Your task to perform on an android device: uninstall "Reddit" Image 0: 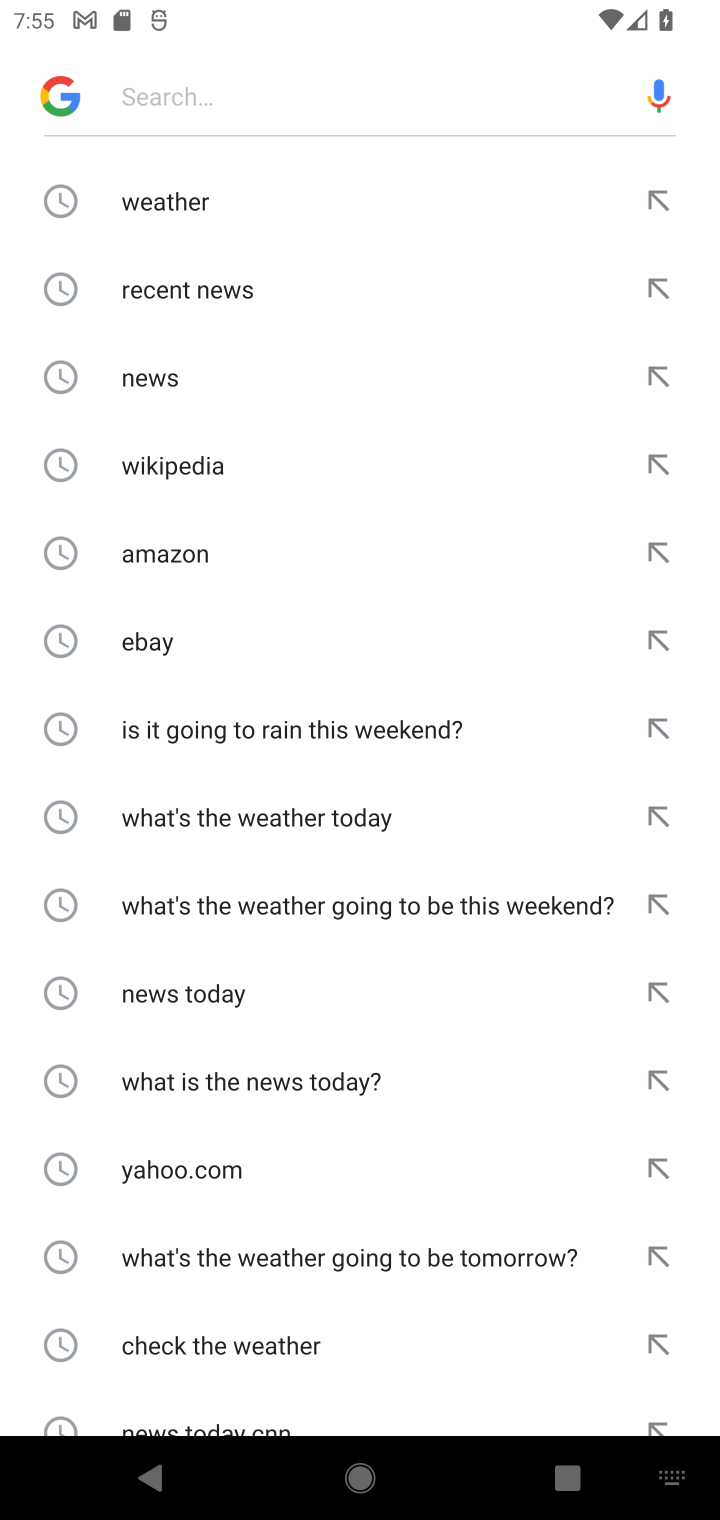
Step 0: press home button
Your task to perform on an android device: uninstall "Reddit" Image 1: 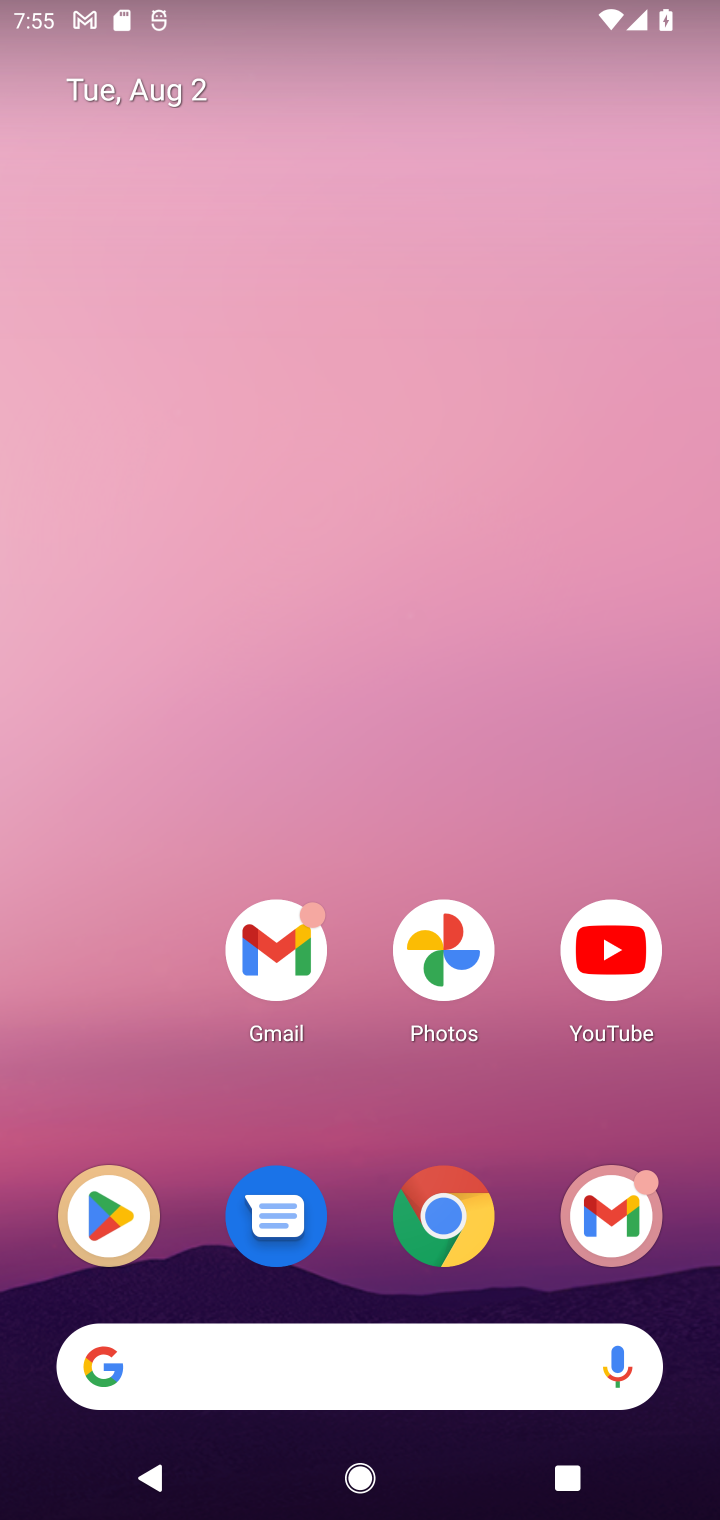
Step 1: click (115, 1208)
Your task to perform on an android device: uninstall "Reddit" Image 2: 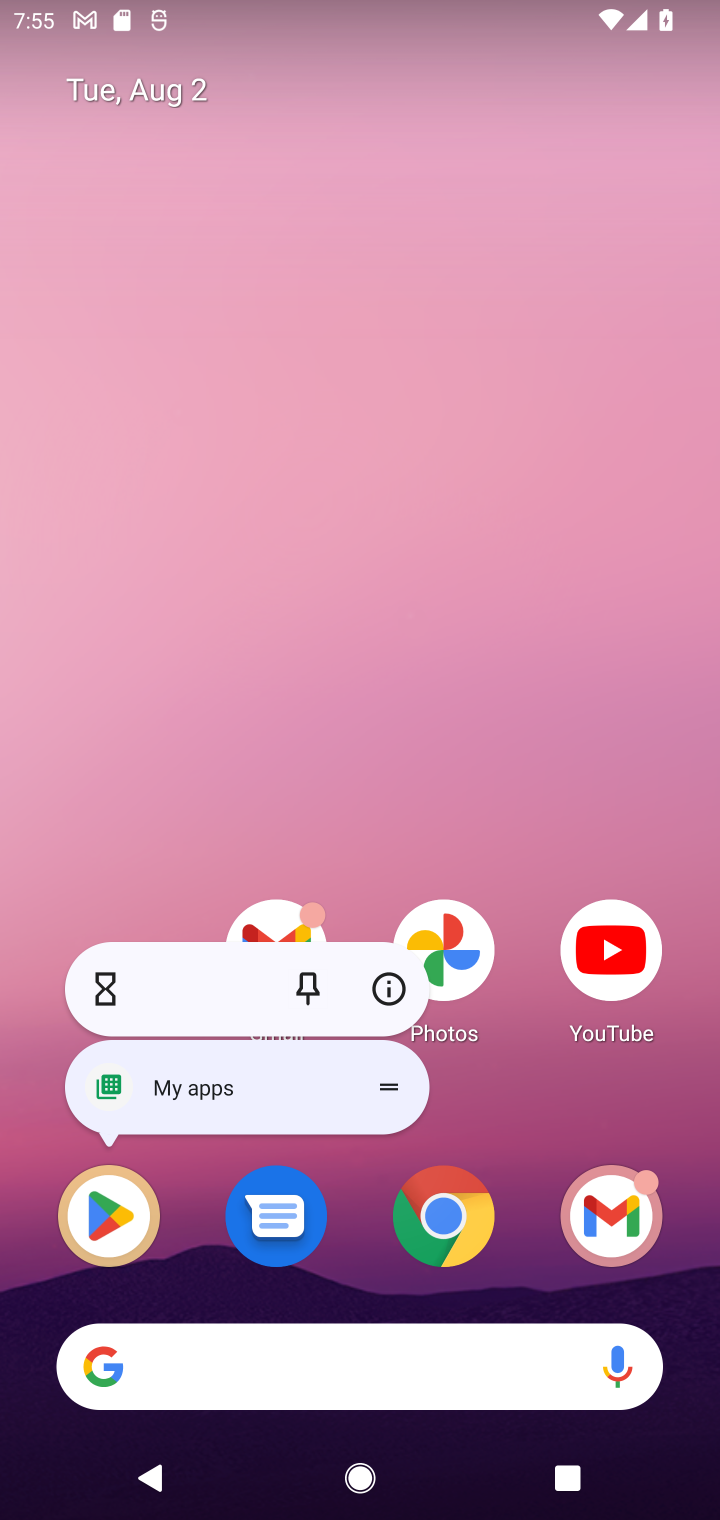
Step 2: click (115, 1208)
Your task to perform on an android device: uninstall "Reddit" Image 3: 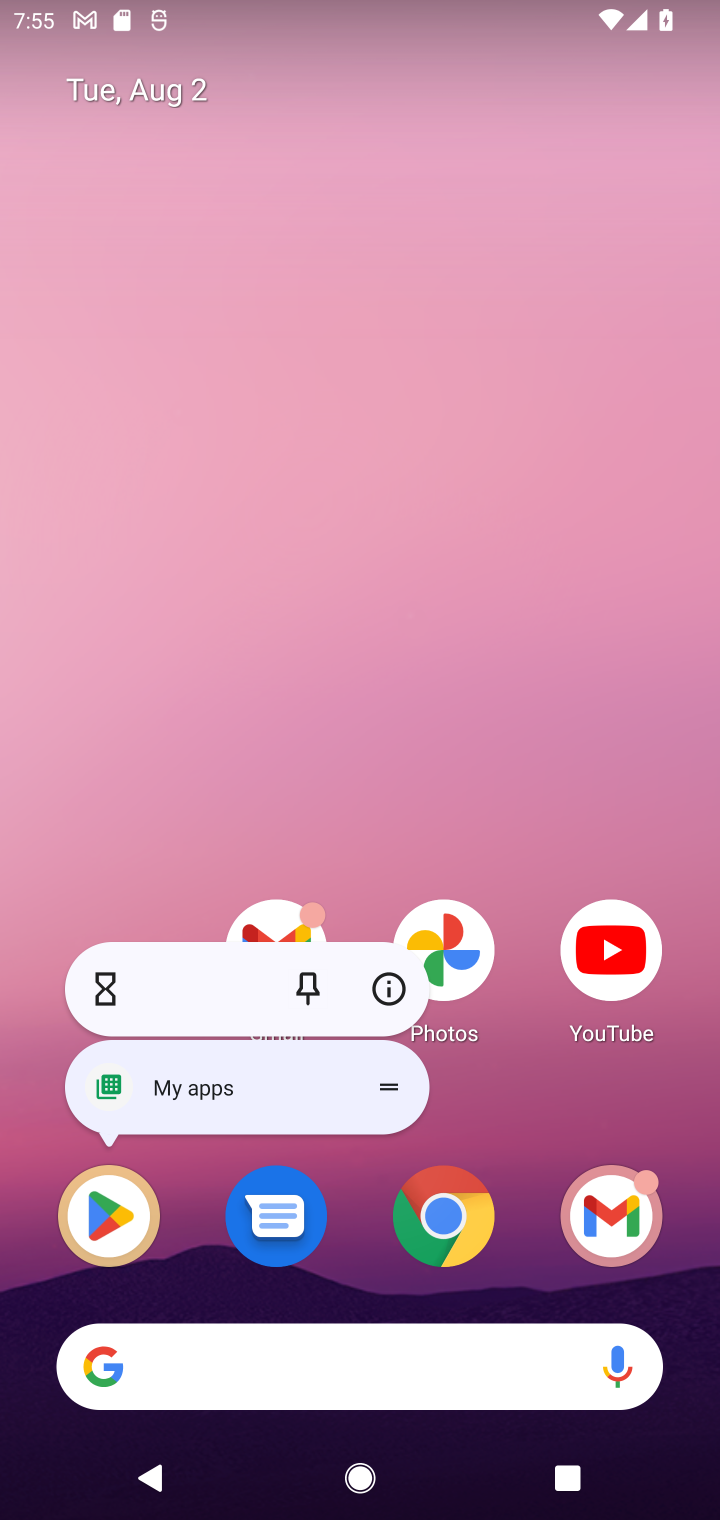
Step 3: click (115, 1210)
Your task to perform on an android device: uninstall "Reddit" Image 4: 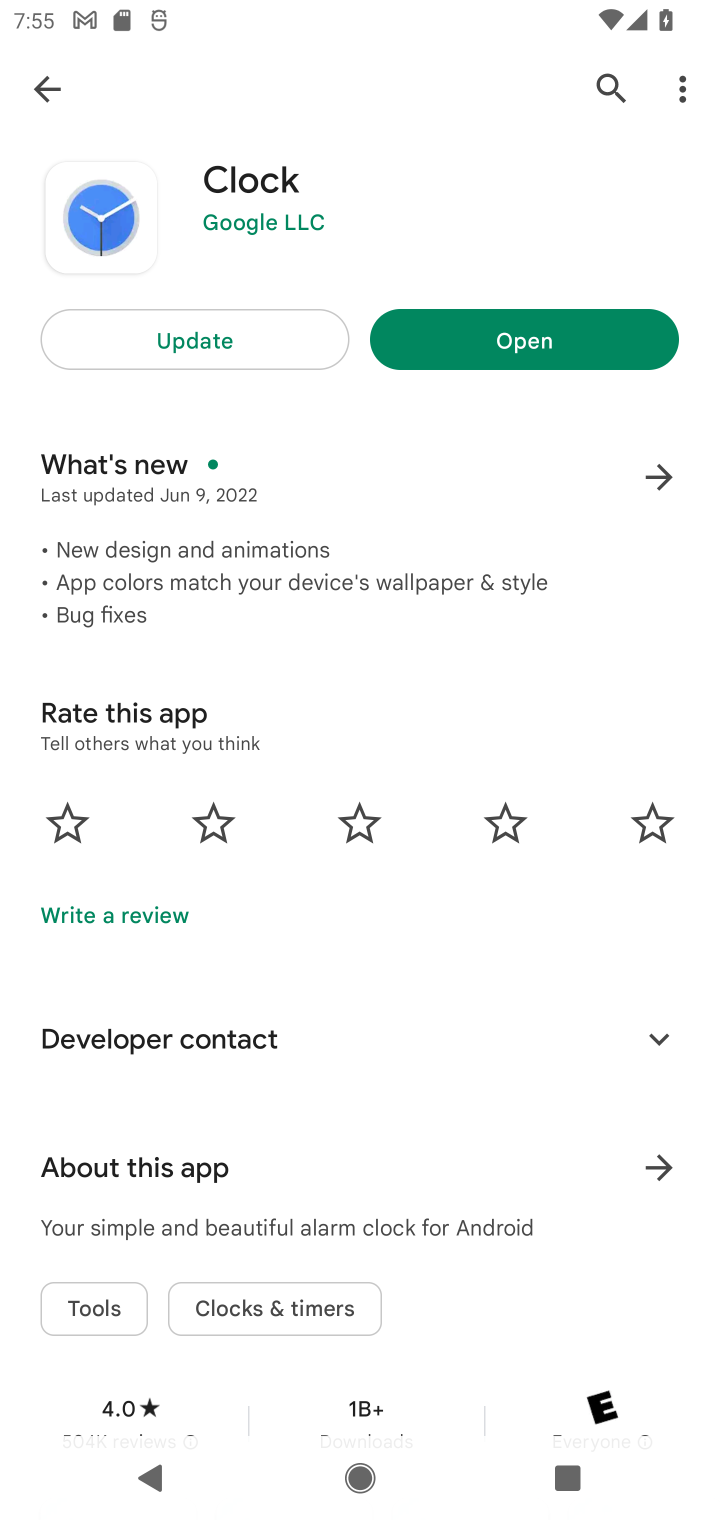
Step 4: click (598, 84)
Your task to perform on an android device: uninstall "Reddit" Image 5: 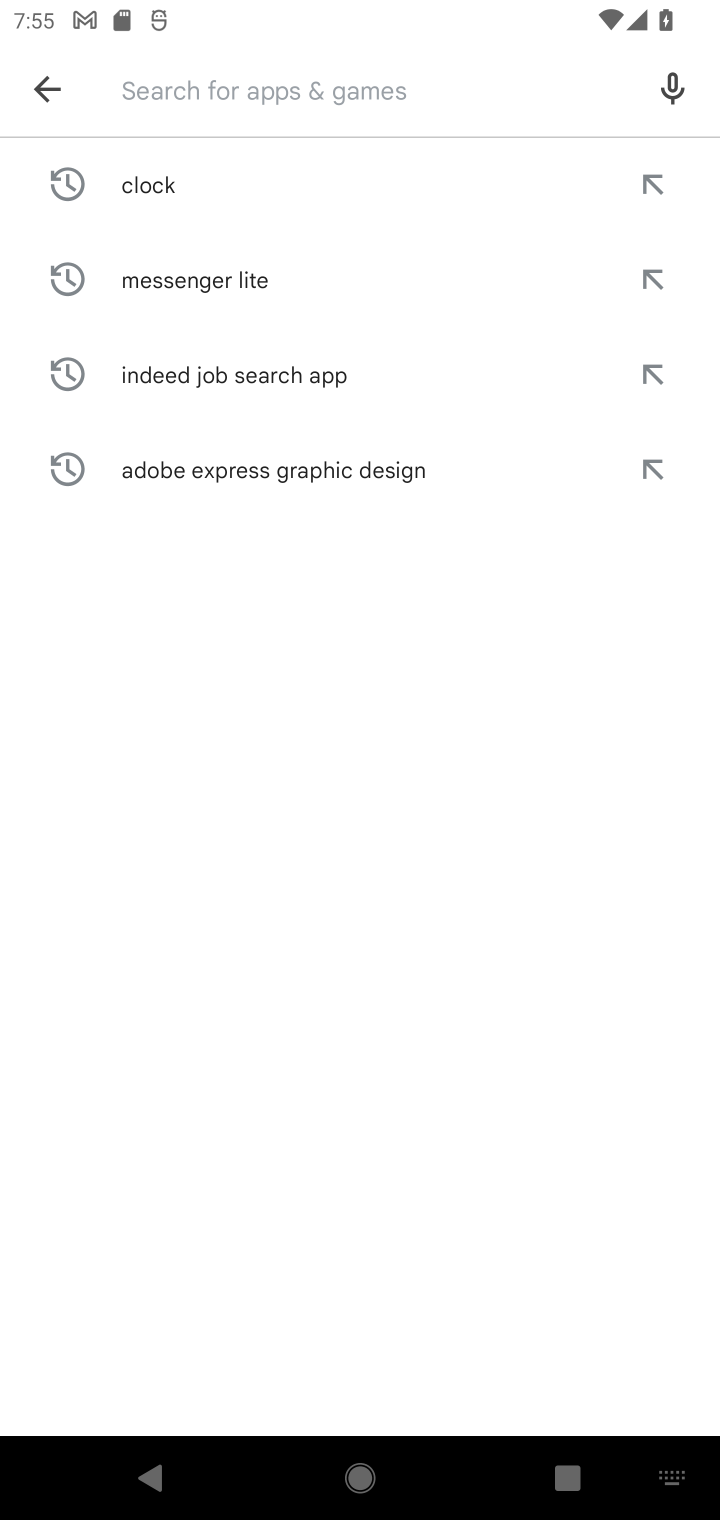
Step 5: type "Reddit"
Your task to perform on an android device: uninstall "Reddit" Image 6: 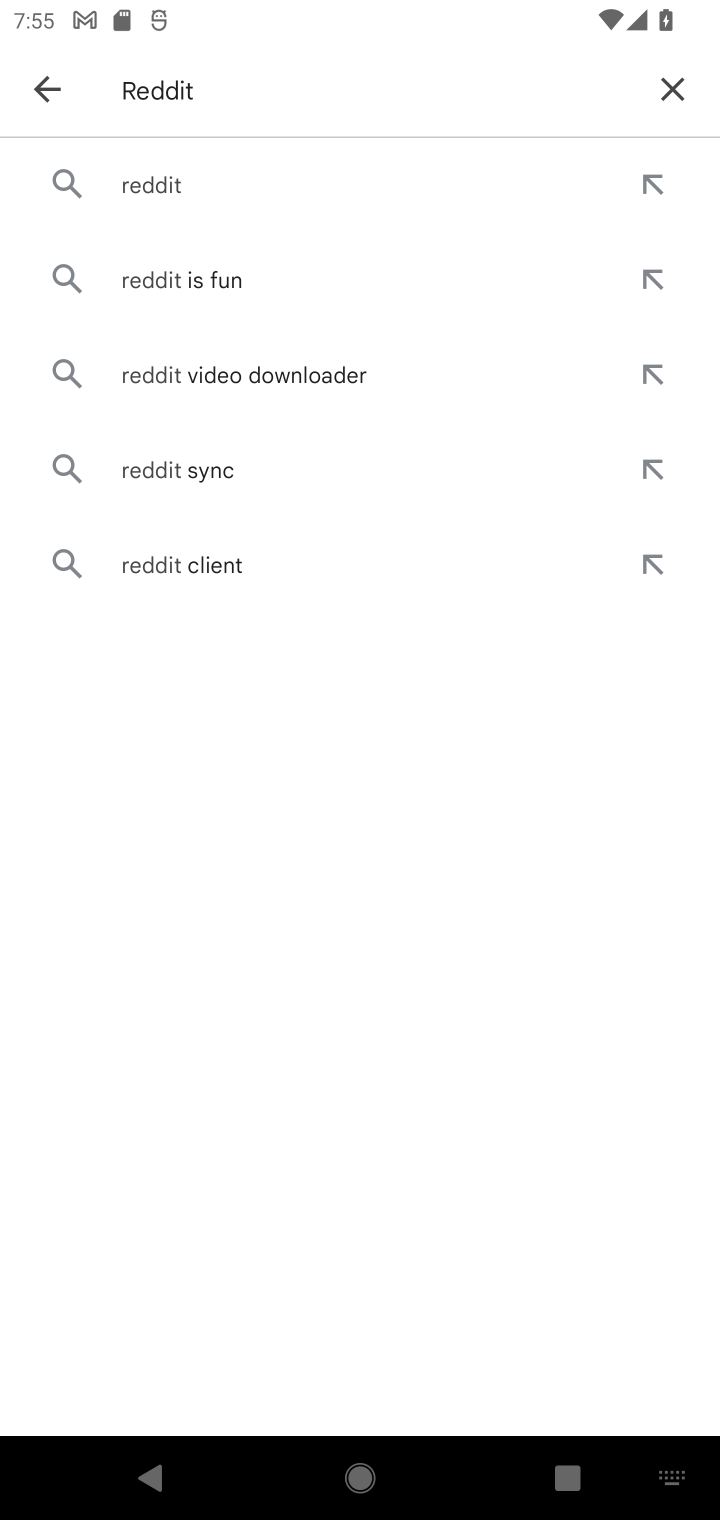
Step 6: click (182, 189)
Your task to perform on an android device: uninstall "Reddit" Image 7: 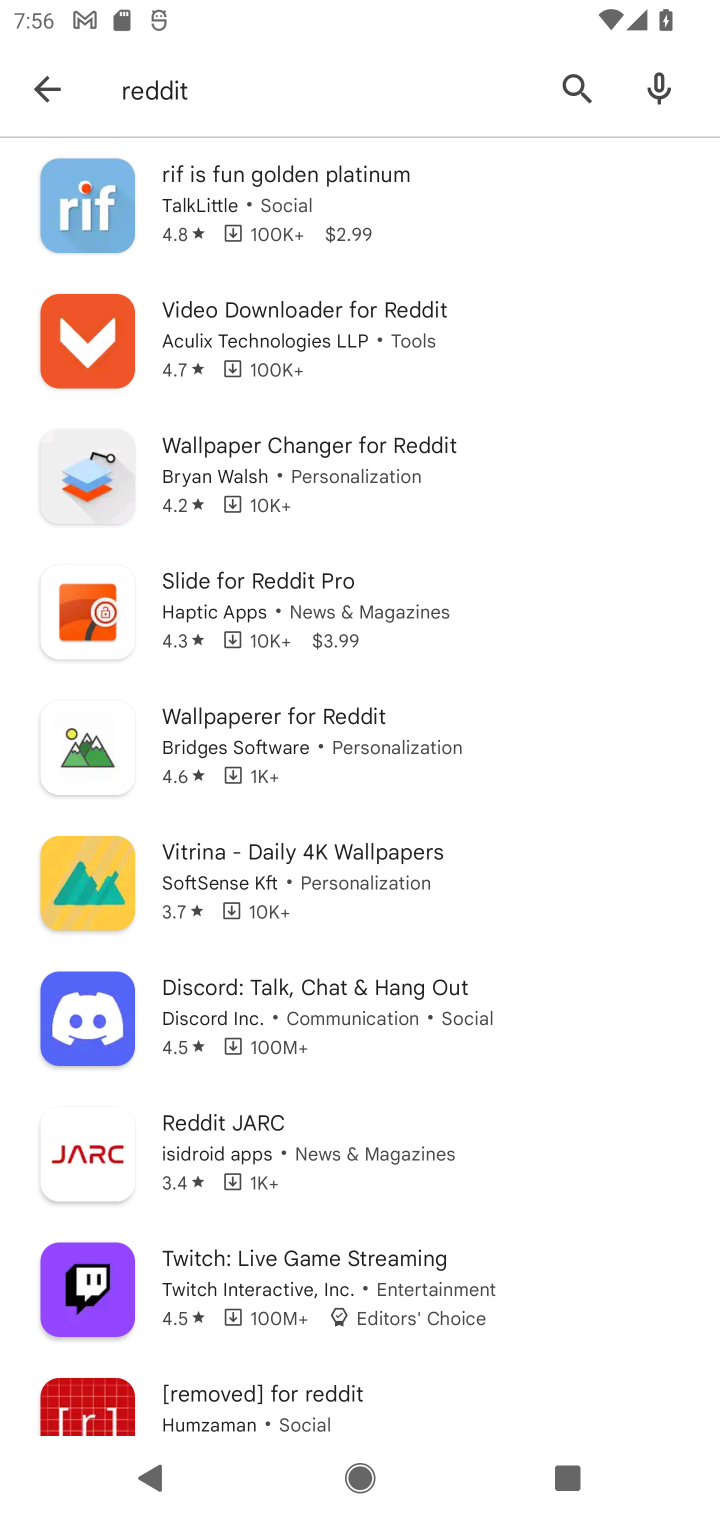
Step 7: task complete